Your task to perform on an android device: see creations saved in the google photos Image 0: 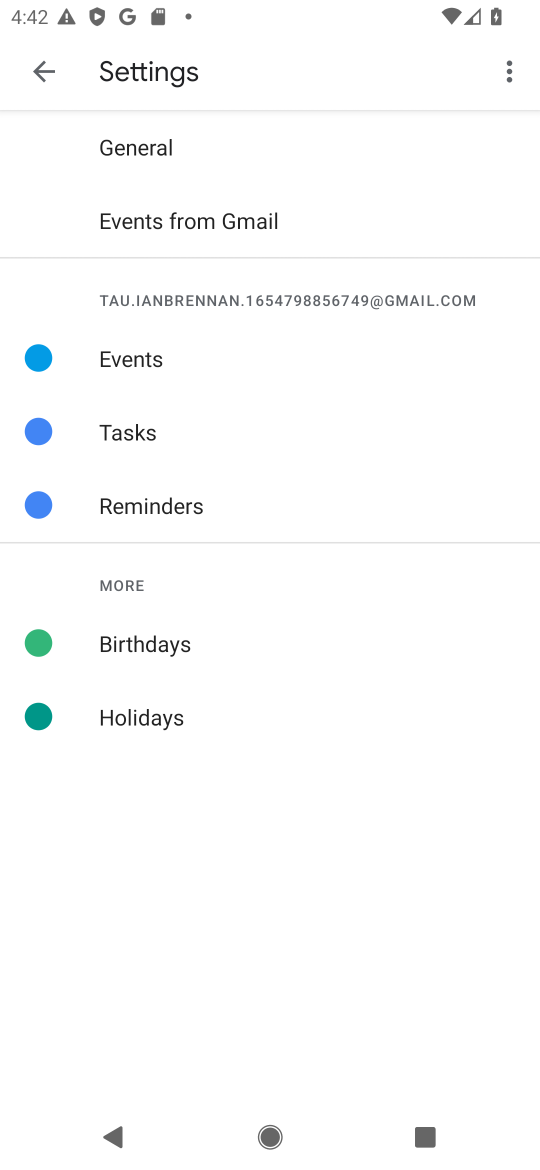
Step 0: press home button
Your task to perform on an android device: see creations saved in the google photos Image 1: 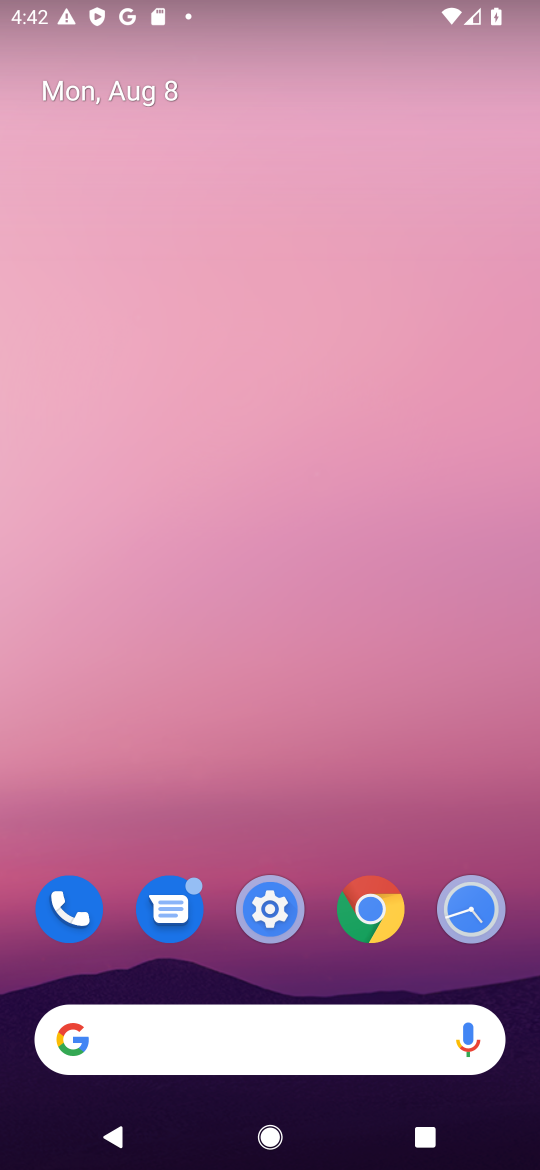
Step 1: drag from (264, 1057) to (354, 479)
Your task to perform on an android device: see creations saved in the google photos Image 2: 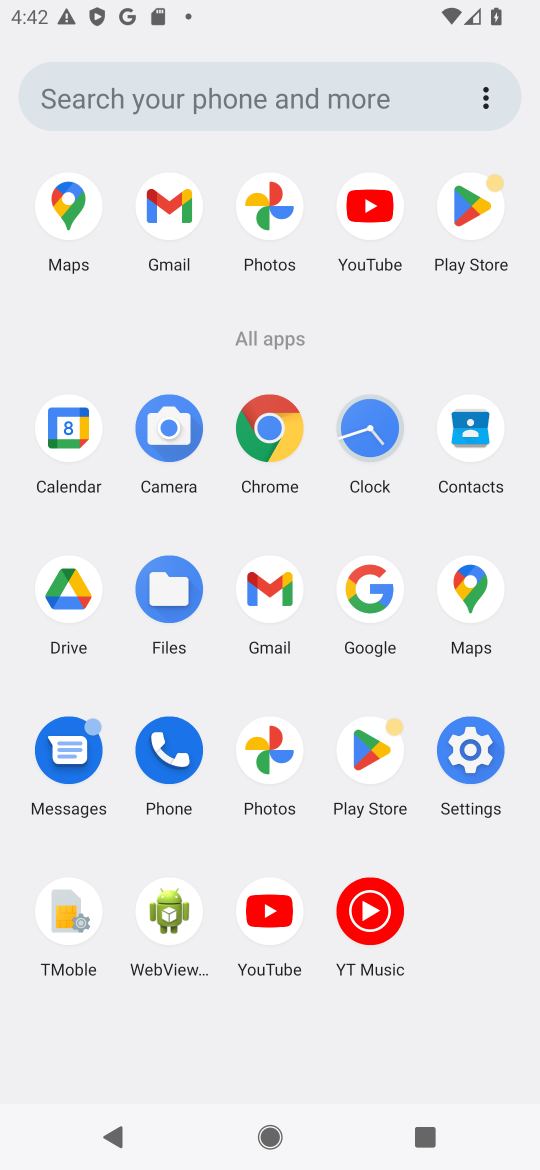
Step 2: click (264, 747)
Your task to perform on an android device: see creations saved in the google photos Image 3: 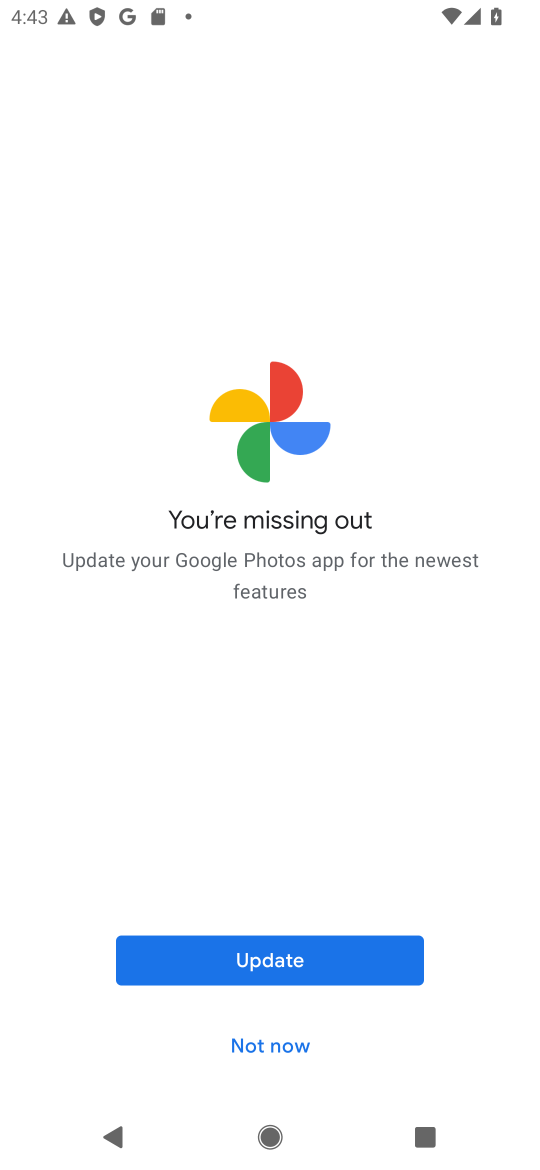
Step 3: click (306, 966)
Your task to perform on an android device: see creations saved in the google photos Image 4: 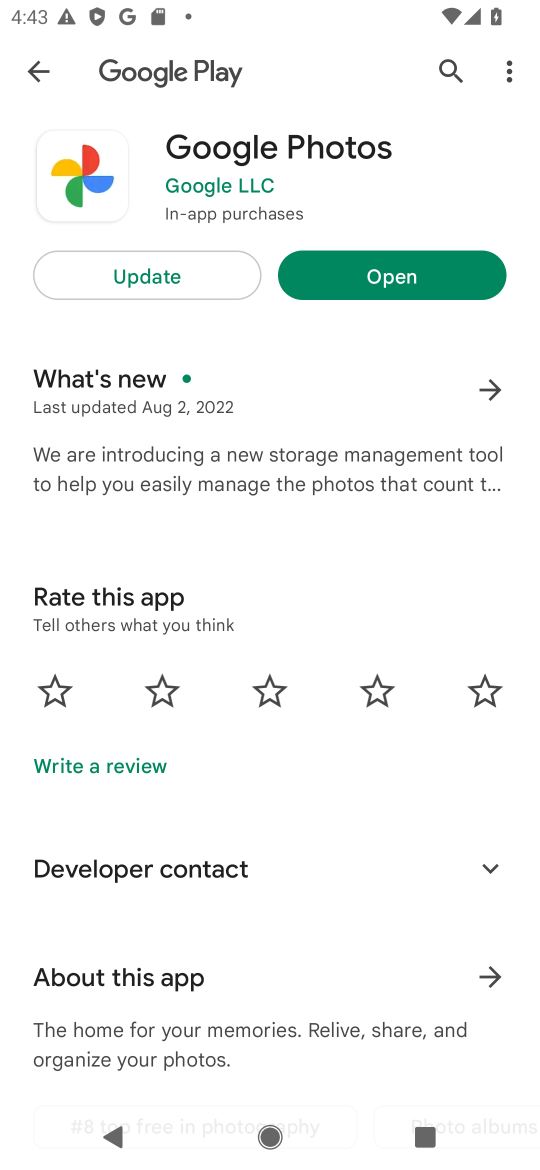
Step 4: click (177, 271)
Your task to perform on an android device: see creations saved in the google photos Image 5: 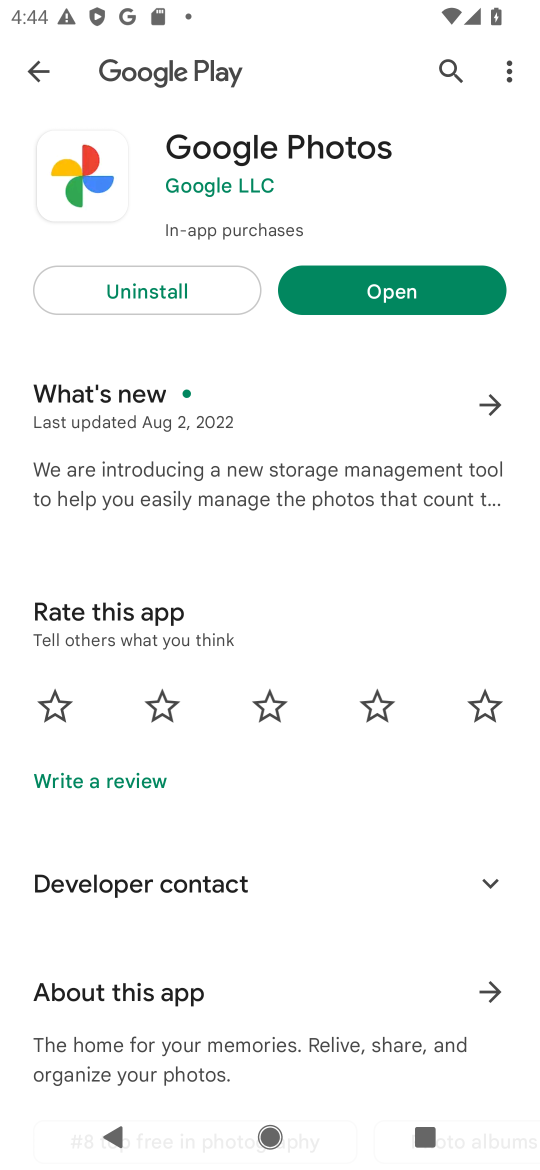
Step 5: click (421, 294)
Your task to perform on an android device: see creations saved in the google photos Image 6: 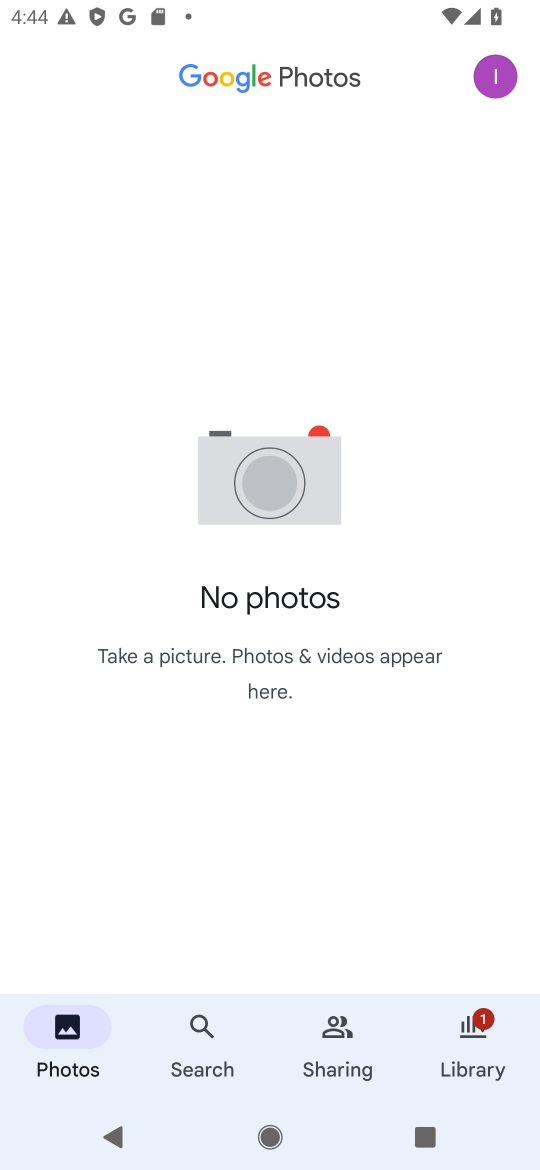
Step 6: click (201, 1023)
Your task to perform on an android device: see creations saved in the google photos Image 7: 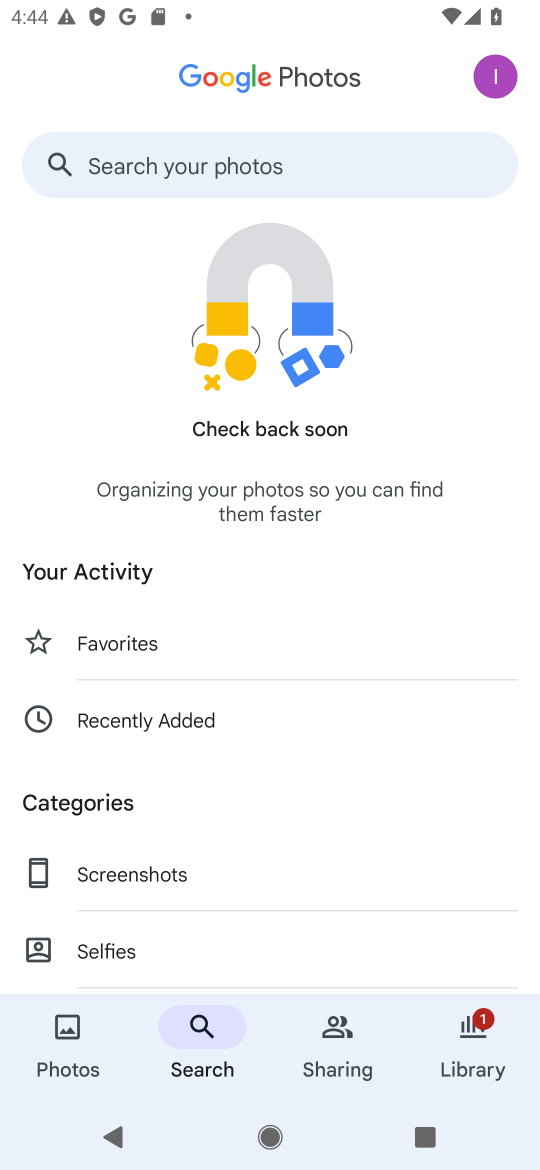
Step 7: drag from (254, 765) to (485, 78)
Your task to perform on an android device: see creations saved in the google photos Image 8: 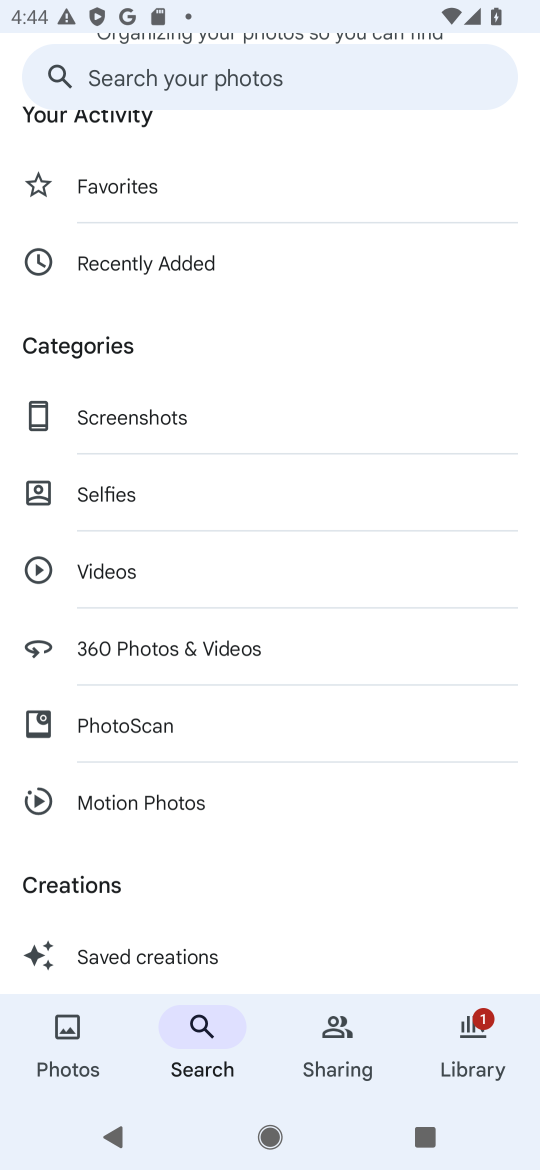
Step 8: drag from (251, 847) to (413, 357)
Your task to perform on an android device: see creations saved in the google photos Image 9: 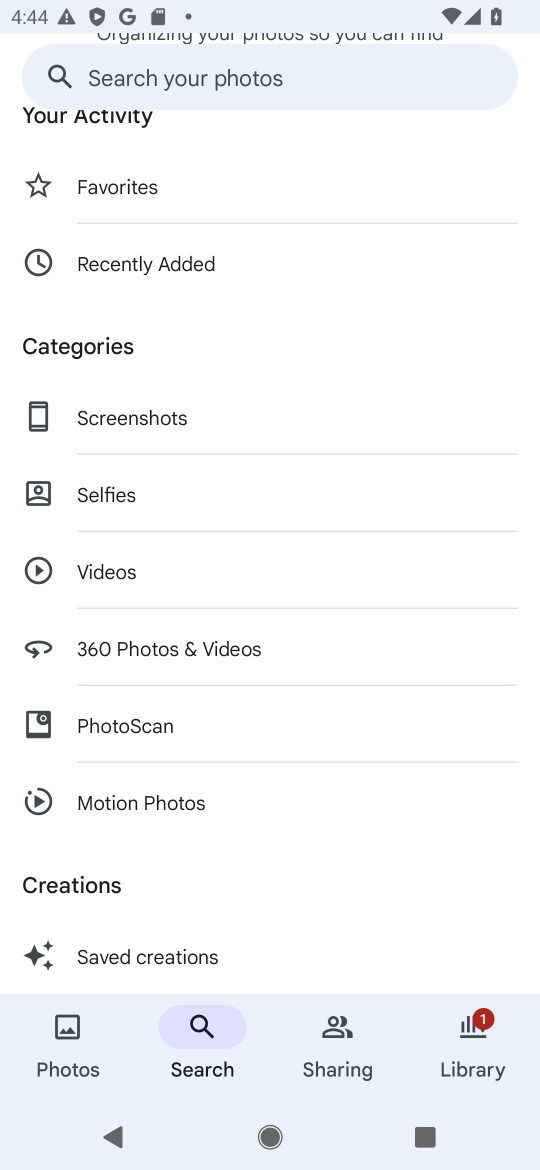
Step 9: click (187, 957)
Your task to perform on an android device: see creations saved in the google photos Image 10: 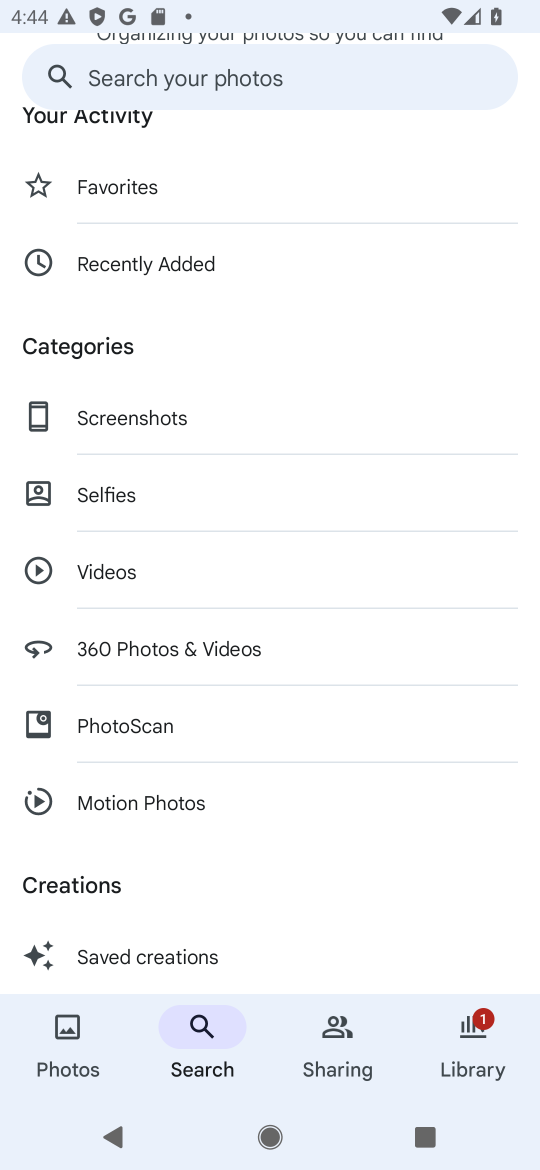
Step 10: click (151, 945)
Your task to perform on an android device: see creations saved in the google photos Image 11: 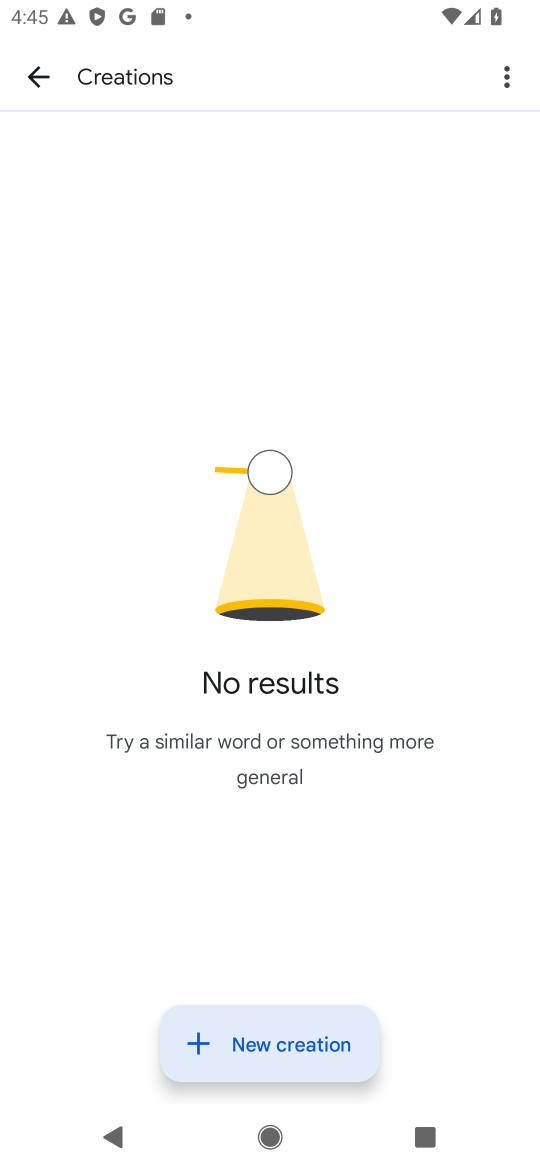
Step 11: task complete